Your task to perform on an android device: clear all cookies in the chrome app Image 0: 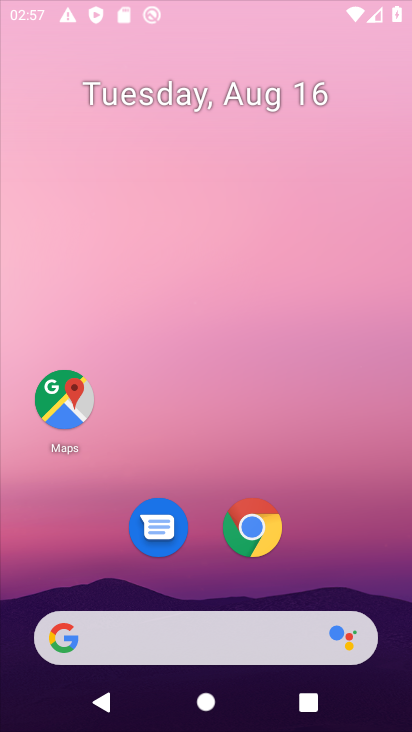
Step 0: press home button
Your task to perform on an android device: clear all cookies in the chrome app Image 1: 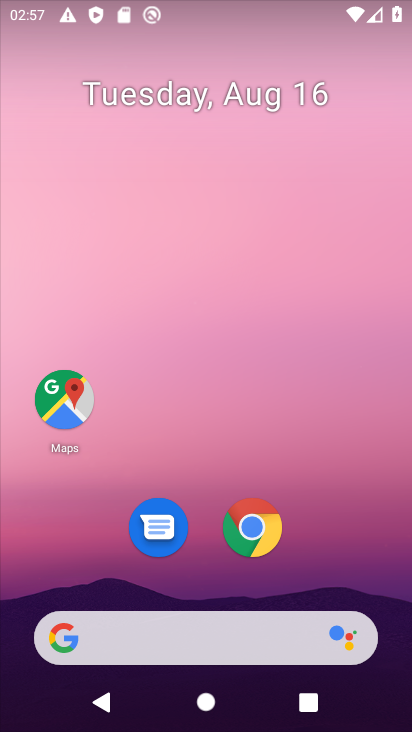
Step 1: click (248, 523)
Your task to perform on an android device: clear all cookies in the chrome app Image 2: 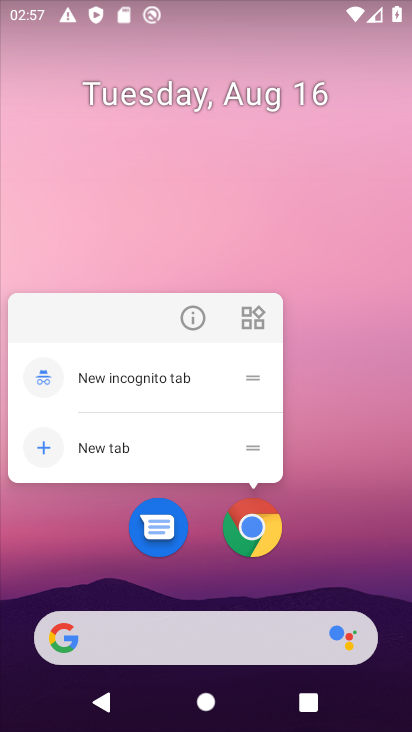
Step 2: click (252, 521)
Your task to perform on an android device: clear all cookies in the chrome app Image 3: 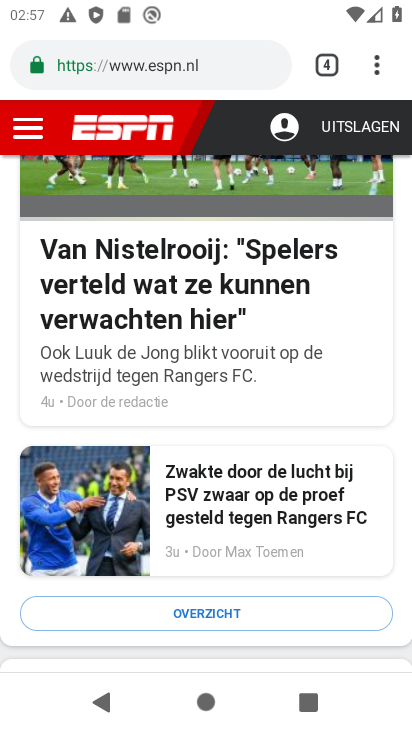
Step 3: click (381, 62)
Your task to perform on an android device: clear all cookies in the chrome app Image 4: 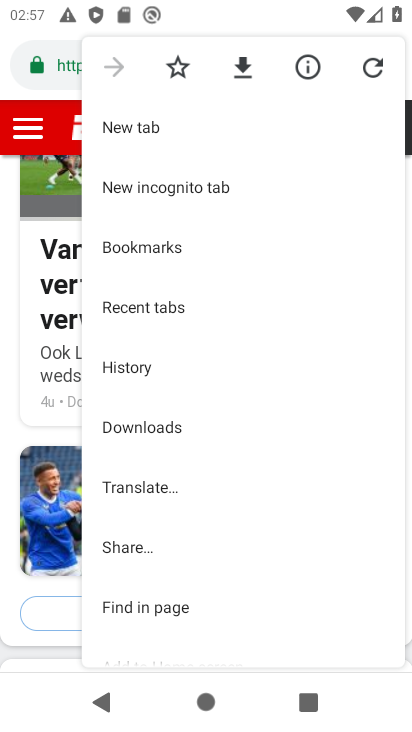
Step 4: click (156, 363)
Your task to perform on an android device: clear all cookies in the chrome app Image 5: 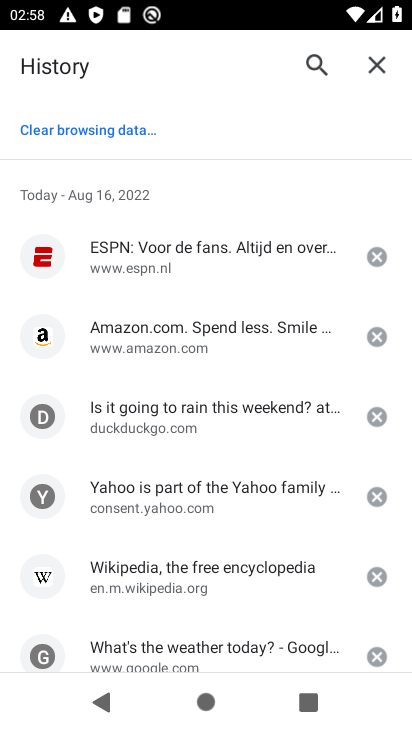
Step 5: click (71, 130)
Your task to perform on an android device: clear all cookies in the chrome app Image 6: 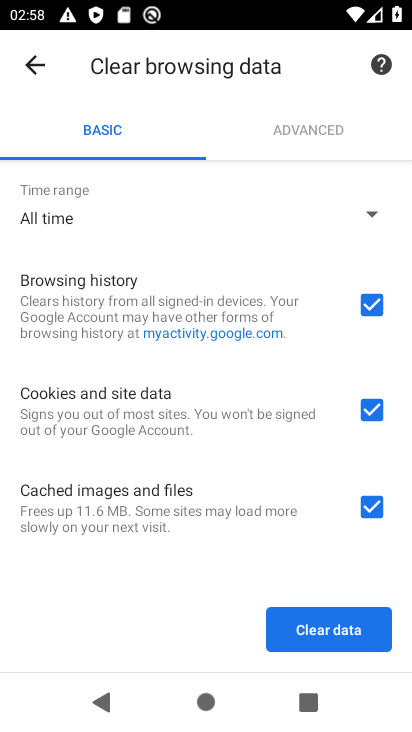
Step 6: click (327, 620)
Your task to perform on an android device: clear all cookies in the chrome app Image 7: 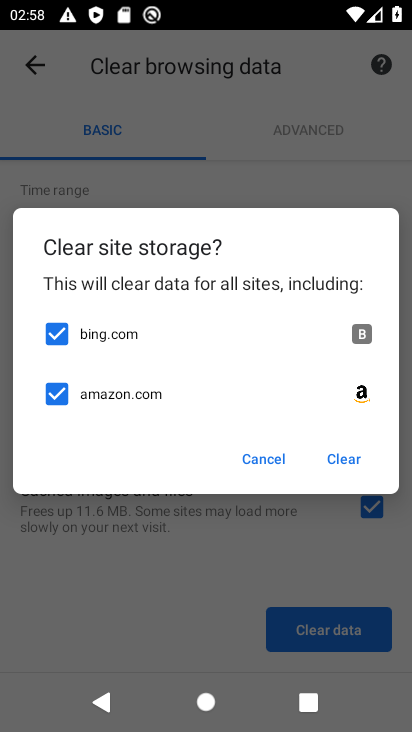
Step 7: click (338, 451)
Your task to perform on an android device: clear all cookies in the chrome app Image 8: 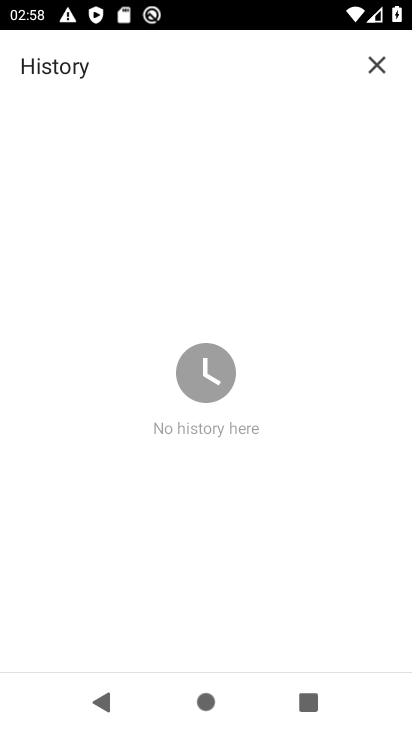
Step 8: task complete